Your task to perform on an android device: search for starred emails in the gmail app Image 0: 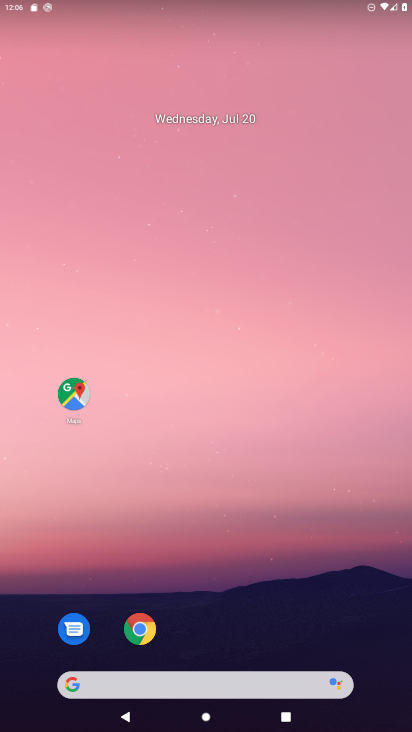
Step 0: drag from (196, 618) to (236, 95)
Your task to perform on an android device: search for starred emails in the gmail app Image 1: 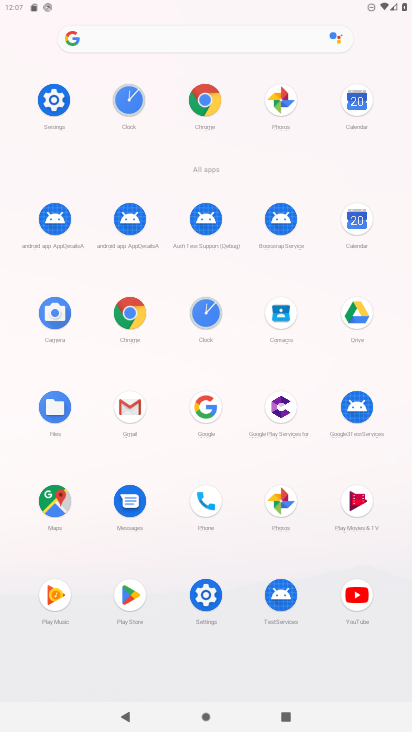
Step 1: click (129, 390)
Your task to perform on an android device: search for starred emails in the gmail app Image 2: 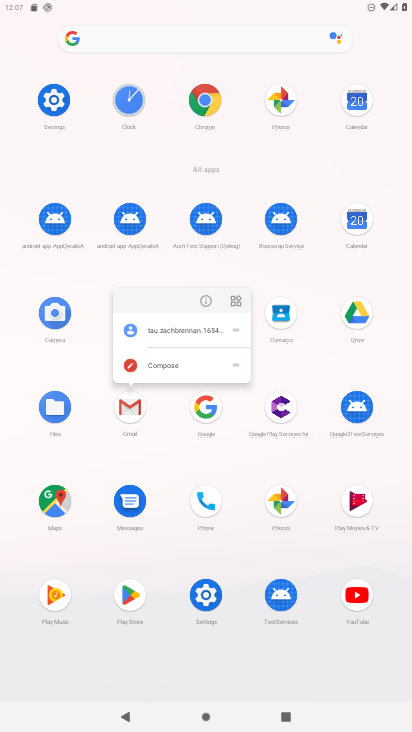
Step 2: click (197, 297)
Your task to perform on an android device: search for starred emails in the gmail app Image 3: 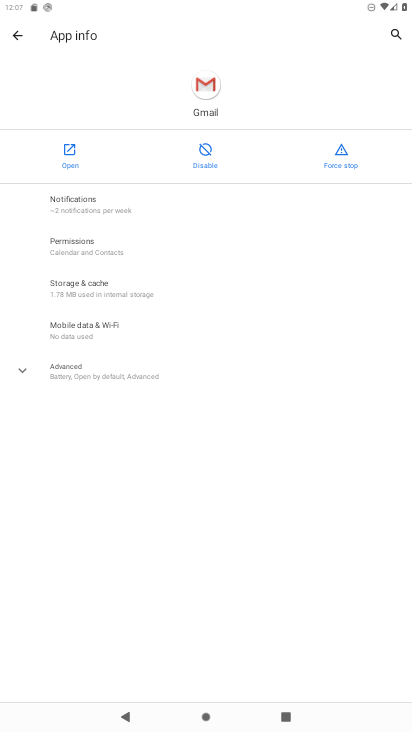
Step 3: click (59, 155)
Your task to perform on an android device: search for starred emails in the gmail app Image 4: 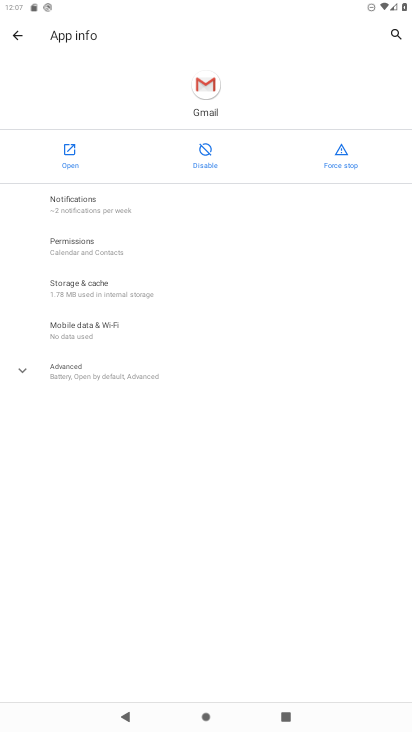
Step 4: click (59, 155)
Your task to perform on an android device: search for starred emails in the gmail app Image 5: 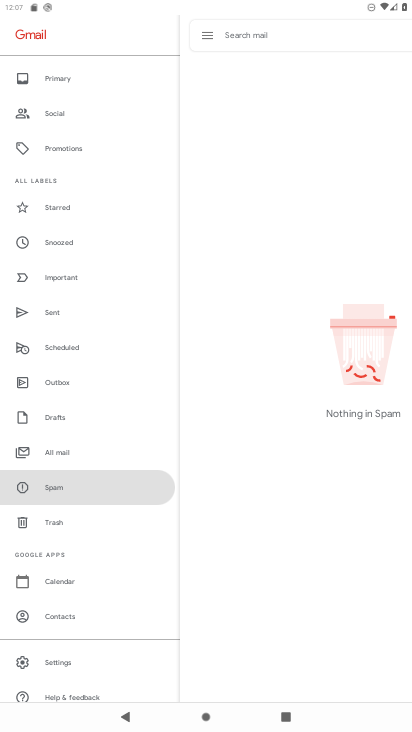
Step 5: click (58, 207)
Your task to perform on an android device: search for starred emails in the gmail app Image 6: 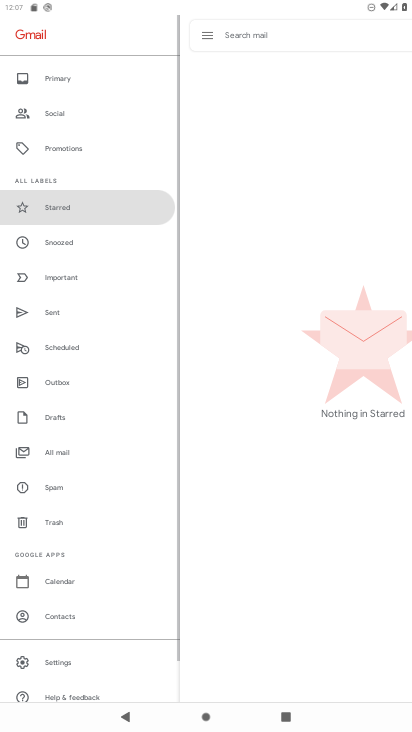
Step 6: task complete